Your task to perform on an android device: Is it going to rain this weekend? Image 0: 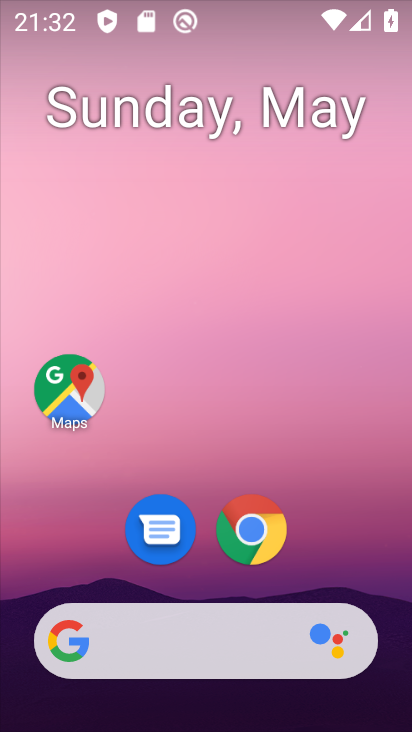
Step 0: click (180, 649)
Your task to perform on an android device: Is it going to rain this weekend? Image 1: 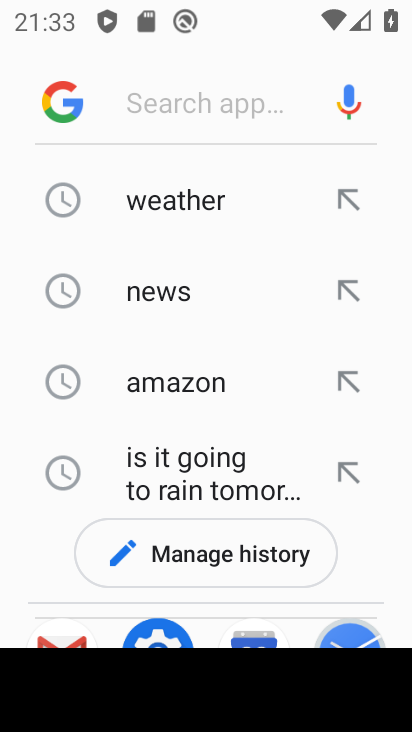
Step 1: type "is it going to rain this weekend"
Your task to perform on an android device: Is it going to rain this weekend? Image 2: 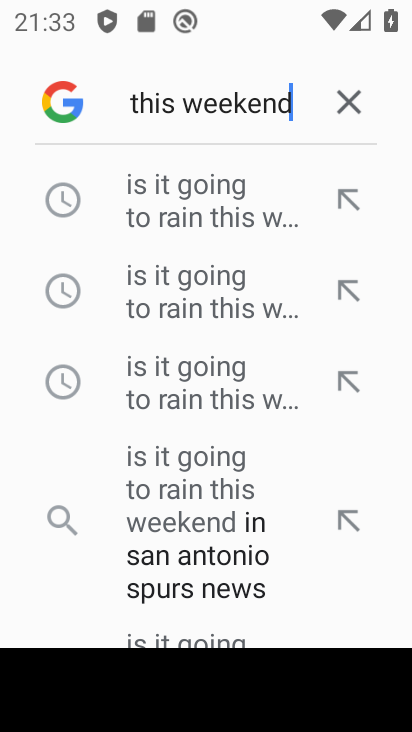
Step 2: click (192, 207)
Your task to perform on an android device: Is it going to rain this weekend? Image 3: 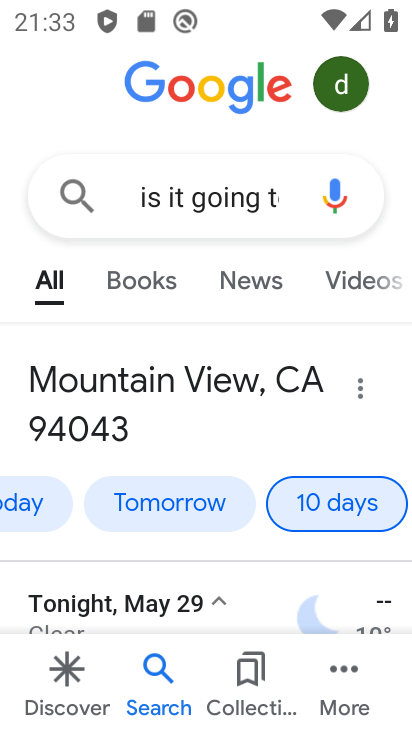
Step 3: drag from (246, 561) to (229, 103)
Your task to perform on an android device: Is it going to rain this weekend? Image 4: 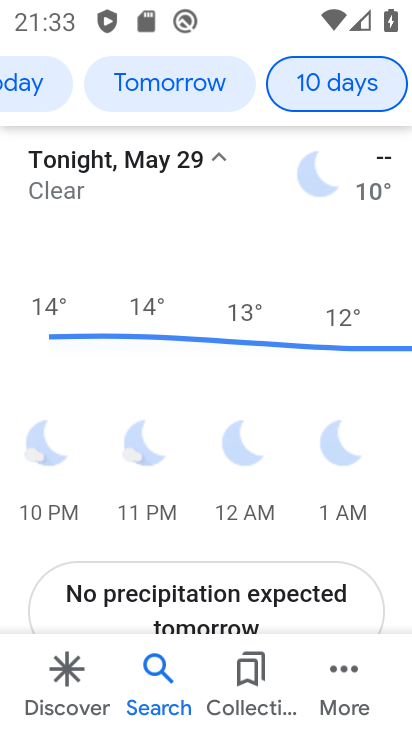
Step 4: drag from (267, 472) to (260, 204)
Your task to perform on an android device: Is it going to rain this weekend? Image 5: 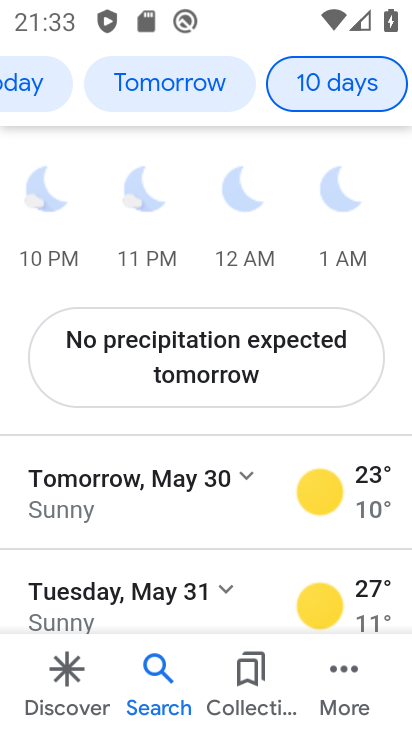
Step 5: drag from (272, 425) to (264, 217)
Your task to perform on an android device: Is it going to rain this weekend? Image 6: 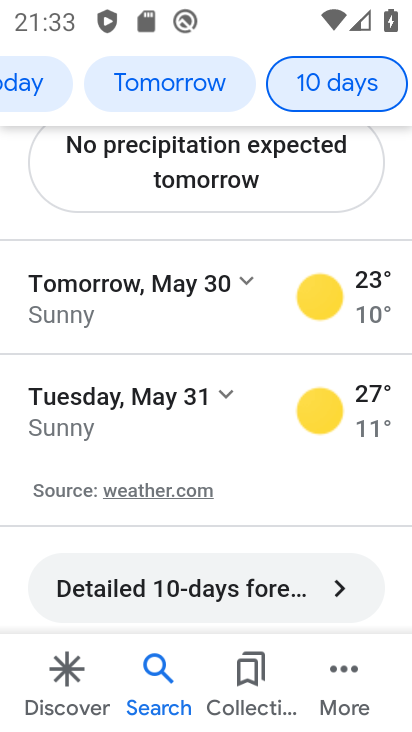
Step 6: click (235, 588)
Your task to perform on an android device: Is it going to rain this weekend? Image 7: 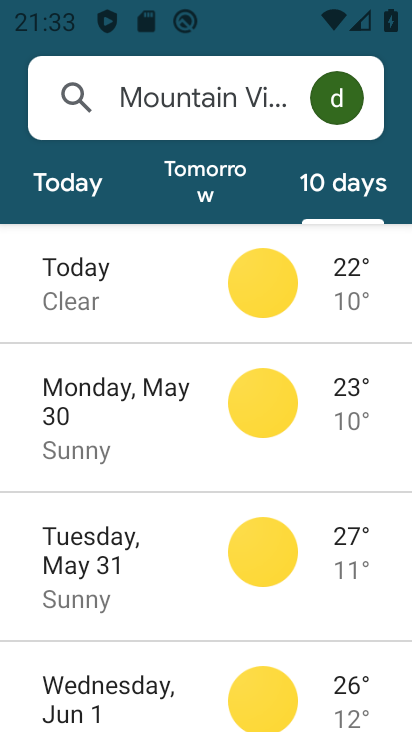
Step 7: task complete